Your task to perform on an android device: Open Chrome and go to settings Image 0: 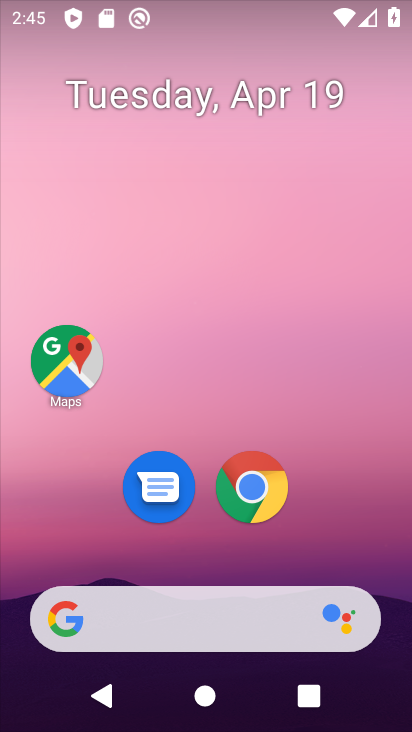
Step 0: click (252, 481)
Your task to perform on an android device: Open Chrome and go to settings Image 1: 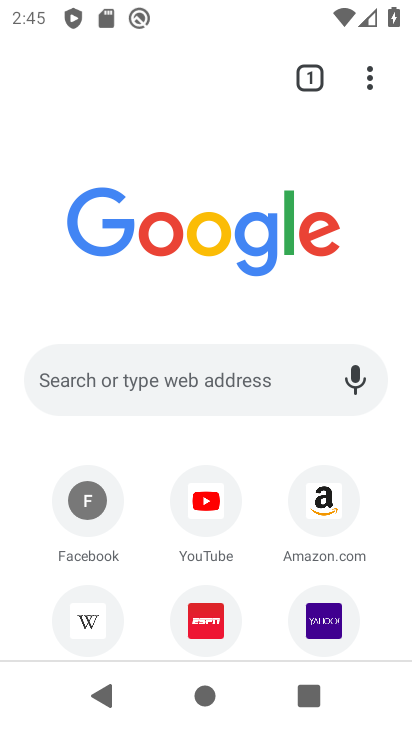
Step 1: click (367, 73)
Your task to perform on an android device: Open Chrome and go to settings Image 2: 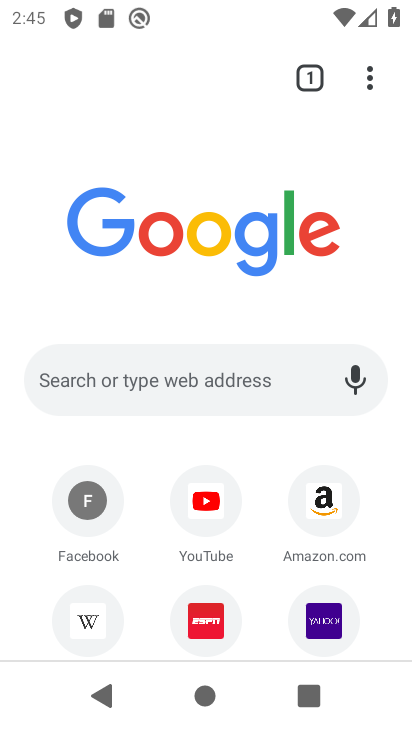
Step 2: click (370, 79)
Your task to perform on an android device: Open Chrome and go to settings Image 3: 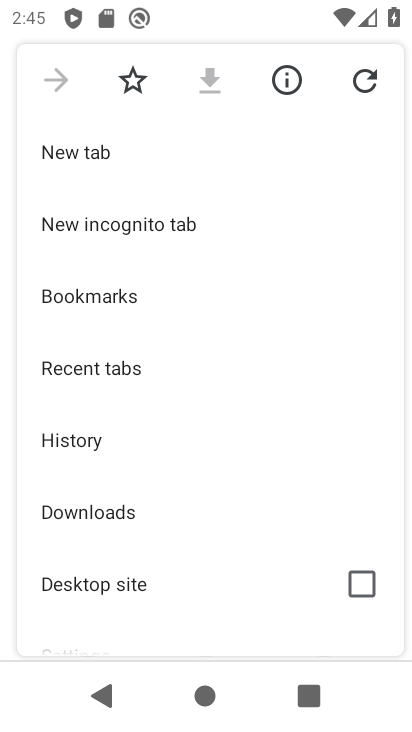
Step 3: drag from (125, 562) to (229, 47)
Your task to perform on an android device: Open Chrome and go to settings Image 4: 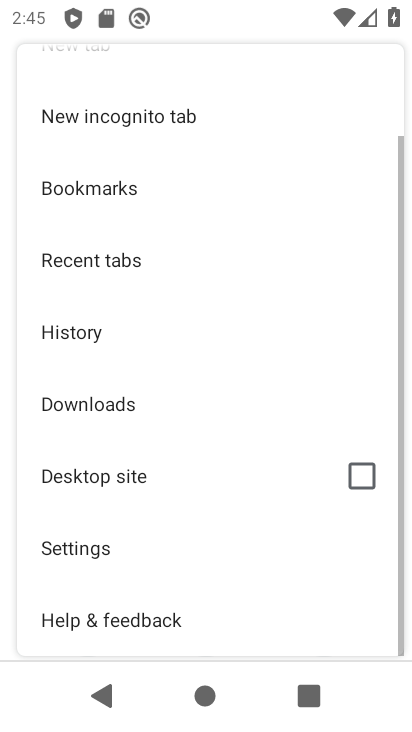
Step 4: click (70, 553)
Your task to perform on an android device: Open Chrome and go to settings Image 5: 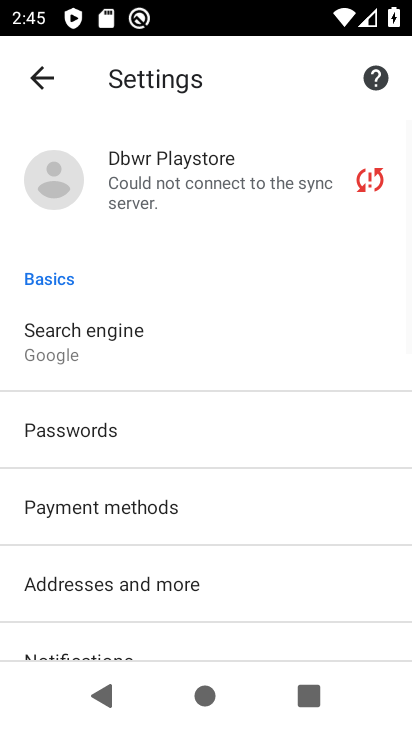
Step 5: task complete